Your task to perform on an android device: Do I have any events this weekend? Image 0: 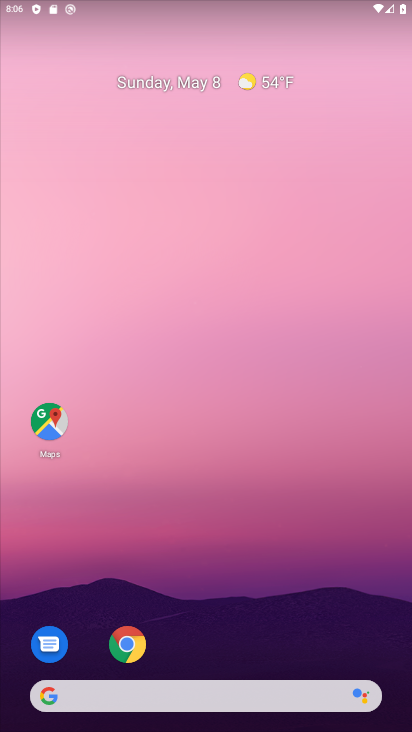
Step 0: drag from (218, 678) to (204, 334)
Your task to perform on an android device: Do I have any events this weekend? Image 1: 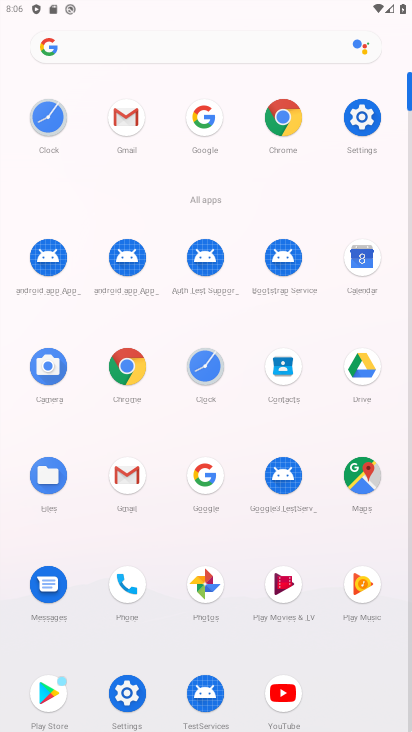
Step 1: click (363, 255)
Your task to perform on an android device: Do I have any events this weekend? Image 2: 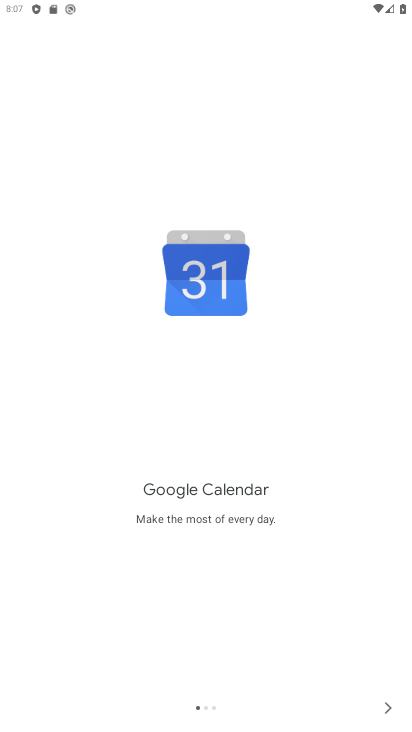
Step 2: click (385, 708)
Your task to perform on an android device: Do I have any events this weekend? Image 3: 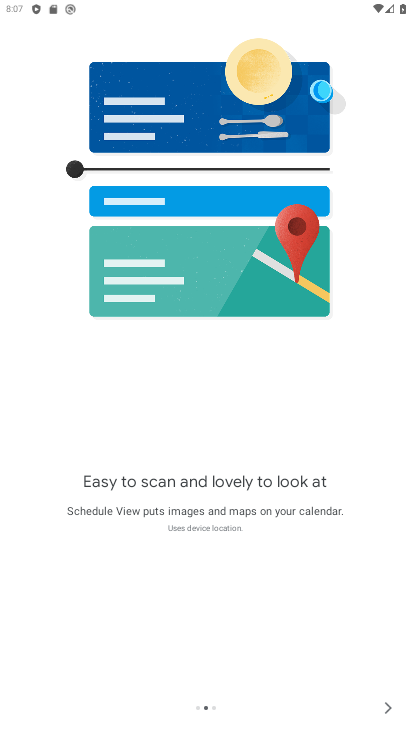
Step 3: click (385, 708)
Your task to perform on an android device: Do I have any events this weekend? Image 4: 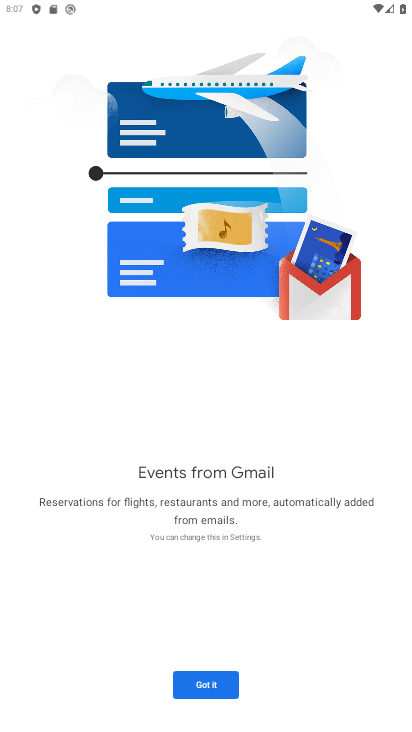
Step 4: click (187, 678)
Your task to perform on an android device: Do I have any events this weekend? Image 5: 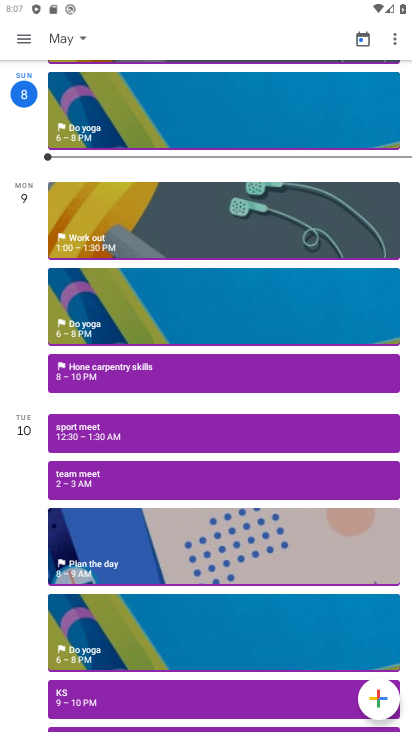
Step 5: click (72, 40)
Your task to perform on an android device: Do I have any events this weekend? Image 6: 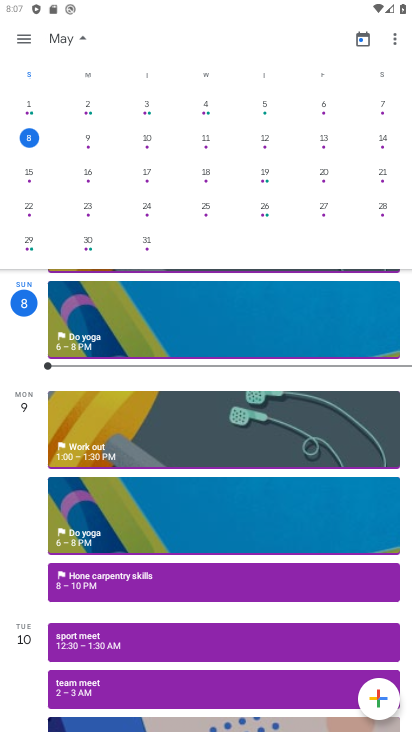
Step 6: click (325, 141)
Your task to perform on an android device: Do I have any events this weekend? Image 7: 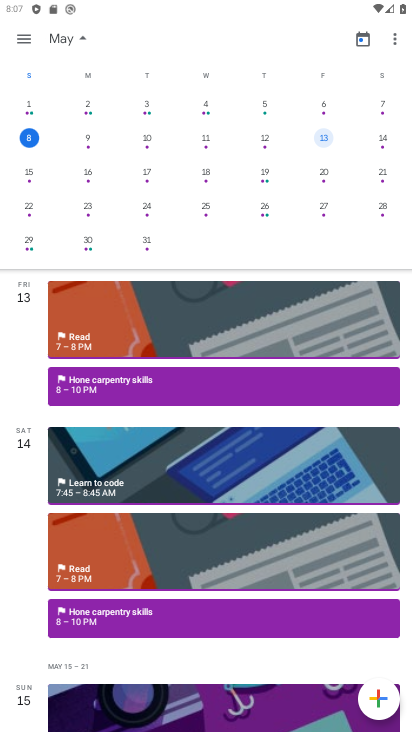
Step 7: task complete